Your task to perform on an android device: Go to Amazon Image 0: 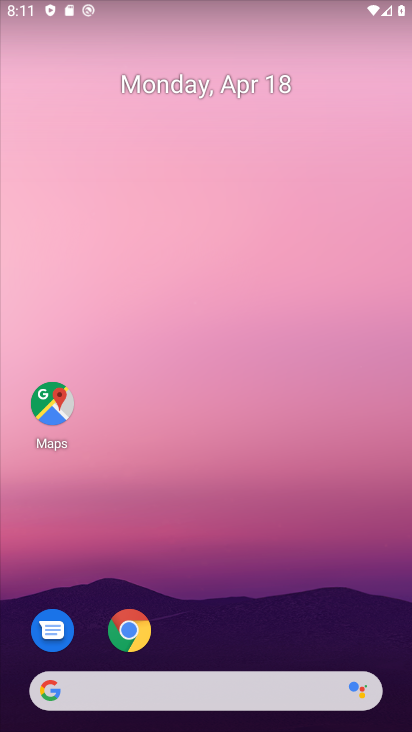
Step 0: click (136, 635)
Your task to perform on an android device: Go to Amazon Image 1: 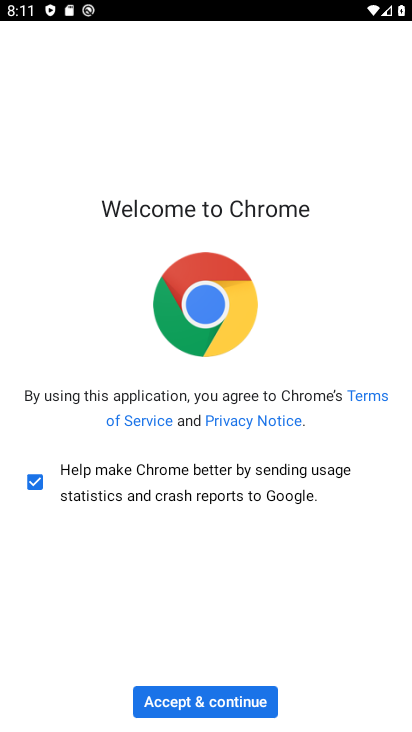
Step 1: click (233, 702)
Your task to perform on an android device: Go to Amazon Image 2: 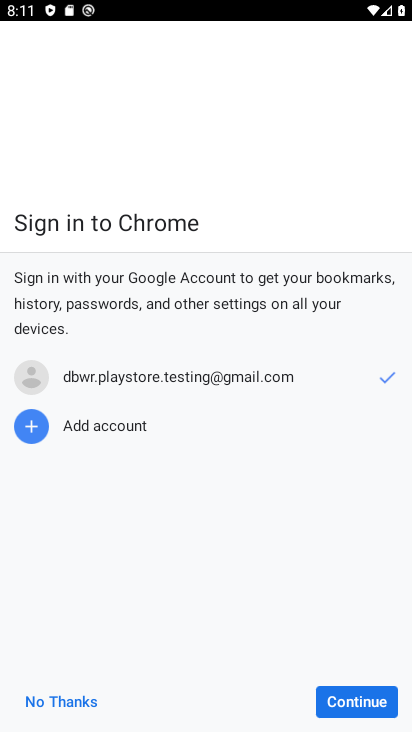
Step 2: click (359, 704)
Your task to perform on an android device: Go to Amazon Image 3: 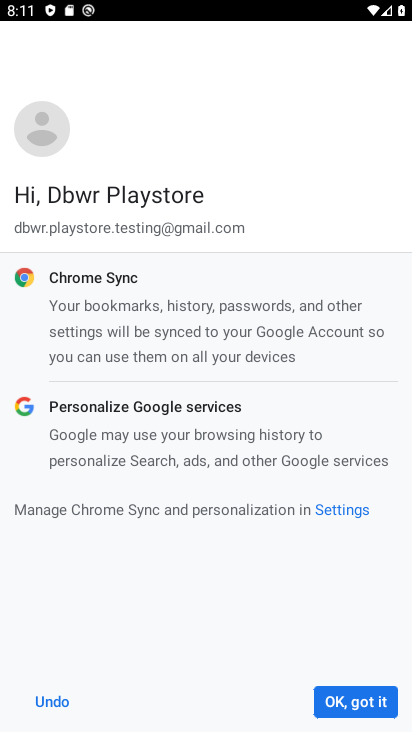
Step 3: click (357, 704)
Your task to perform on an android device: Go to Amazon Image 4: 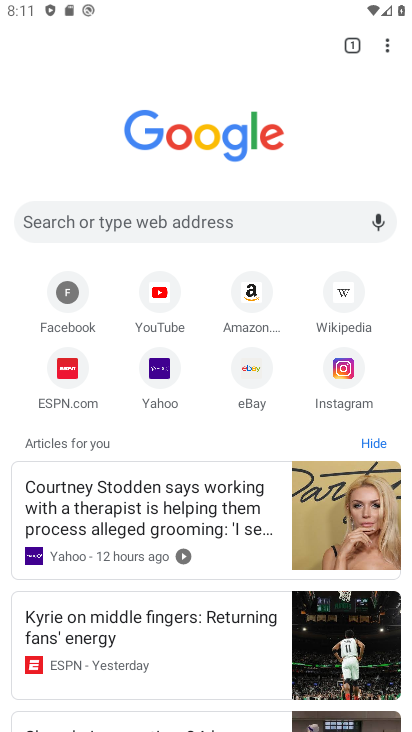
Step 4: click (253, 297)
Your task to perform on an android device: Go to Amazon Image 5: 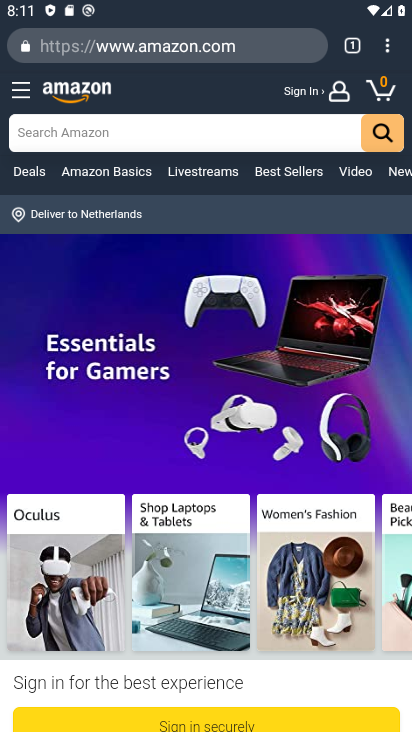
Step 5: task complete